Your task to perform on an android device: Open the map Image 0: 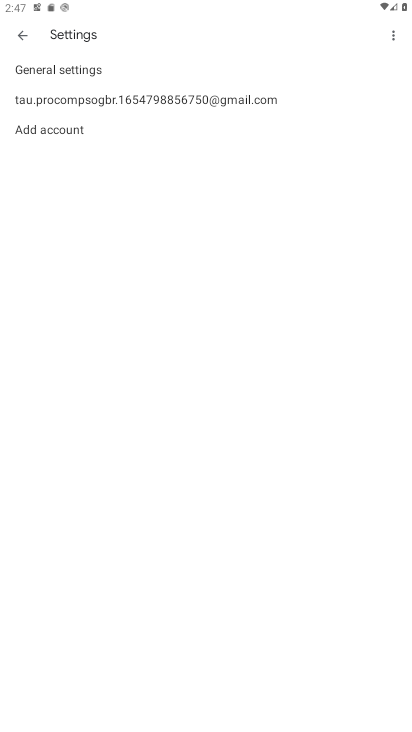
Step 0: drag from (228, 660) to (182, 139)
Your task to perform on an android device: Open the map Image 1: 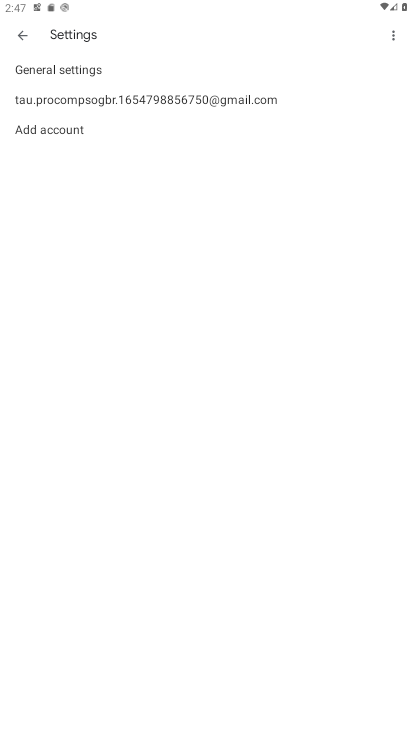
Step 1: press home button
Your task to perform on an android device: Open the map Image 2: 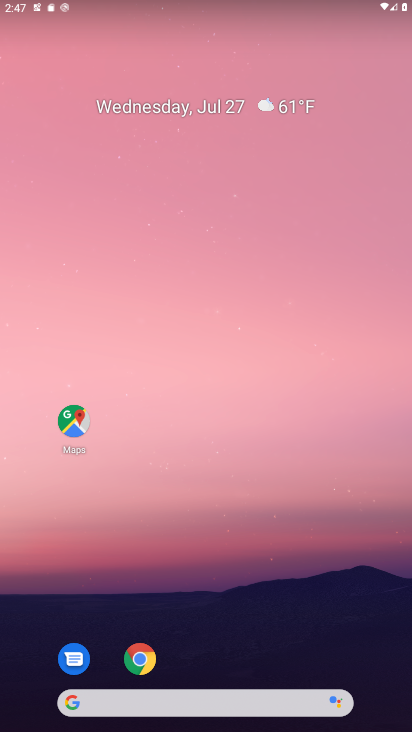
Step 2: drag from (147, 239) to (119, 13)
Your task to perform on an android device: Open the map Image 3: 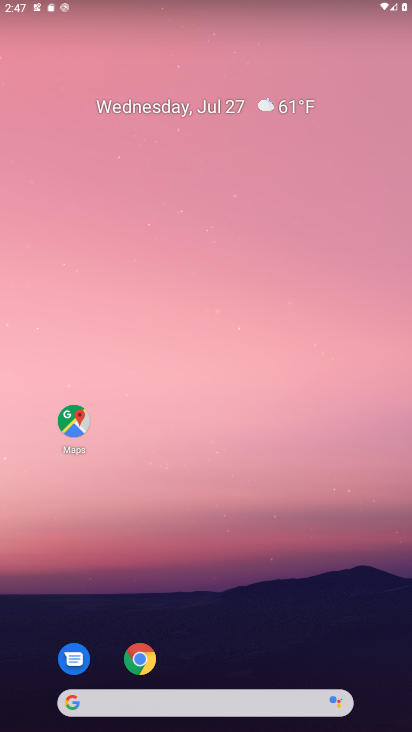
Step 3: click (67, 426)
Your task to perform on an android device: Open the map Image 4: 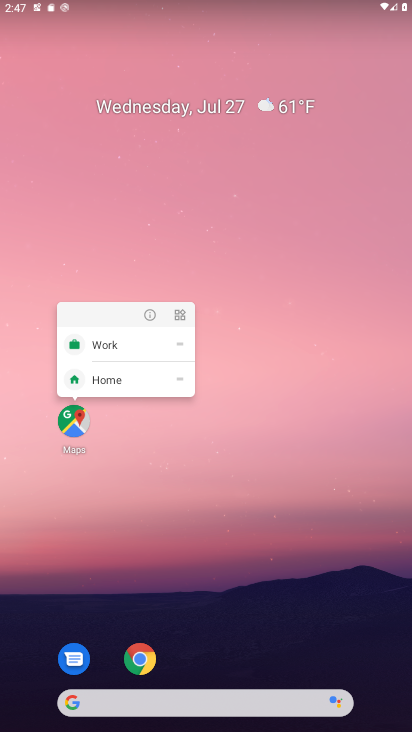
Step 4: click (84, 423)
Your task to perform on an android device: Open the map Image 5: 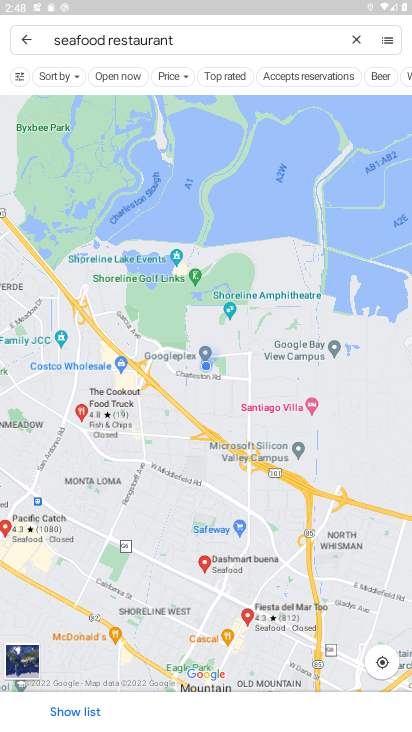
Step 5: task complete